Your task to perform on an android device: choose inbox layout in the gmail app Image 0: 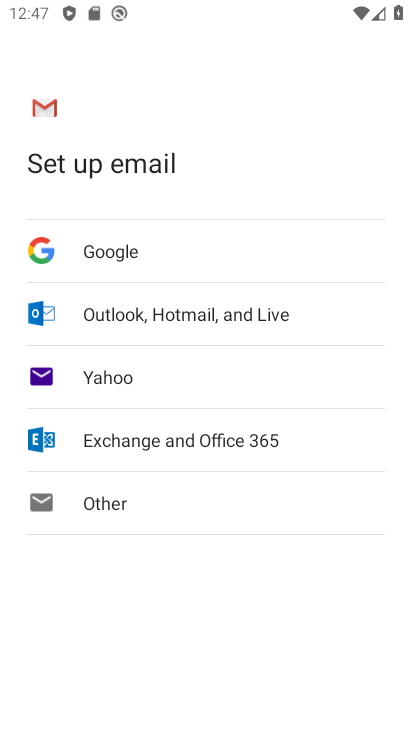
Step 0: press back button
Your task to perform on an android device: choose inbox layout in the gmail app Image 1: 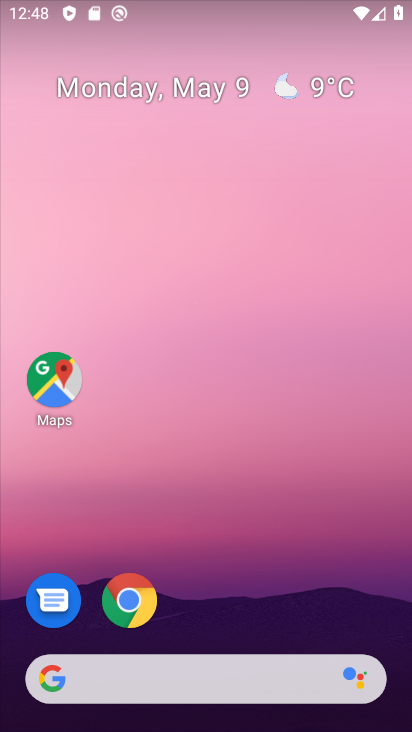
Step 1: click (183, 645)
Your task to perform on an android device: choose inbox layout in the gmail app Image 2: 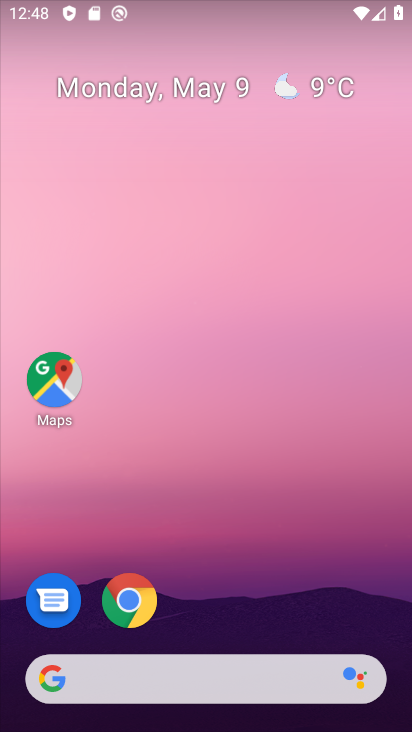
Step 2: drag from (195, 655) to (322, 175)
Your task to perform on an android device: choose inbox layout in the gmail app Image 3: 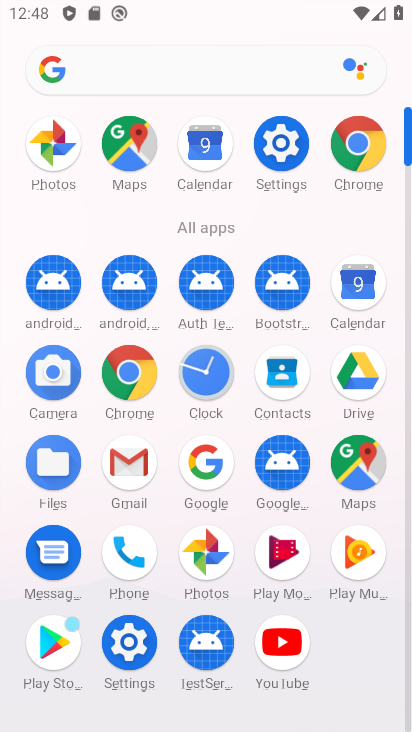
Step 3: click (98, 459)
Your task to perform on an android device: choose inbox layout in the gmail app Image 4: 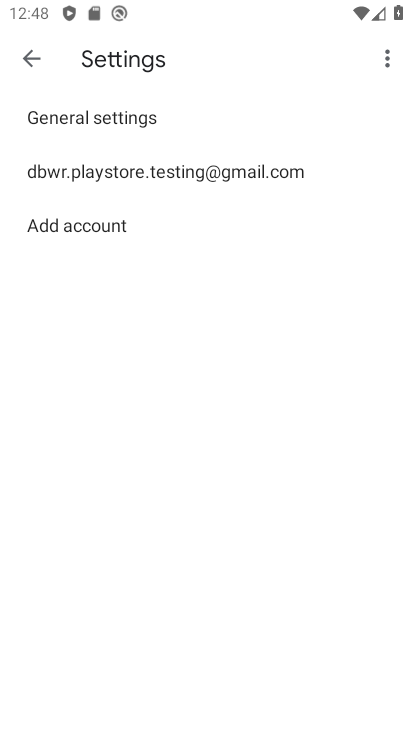
Step 4: click (271, 176)
Your task to perform on an android device: choose inbox layout in the gmail app Image 5: 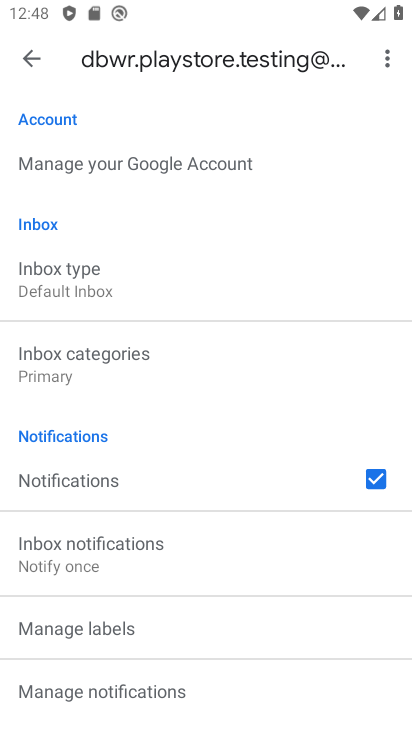
Step 5: click (205, 273)
Your task to perform on an android device: choose inbox layout in the gmail app Image 6: 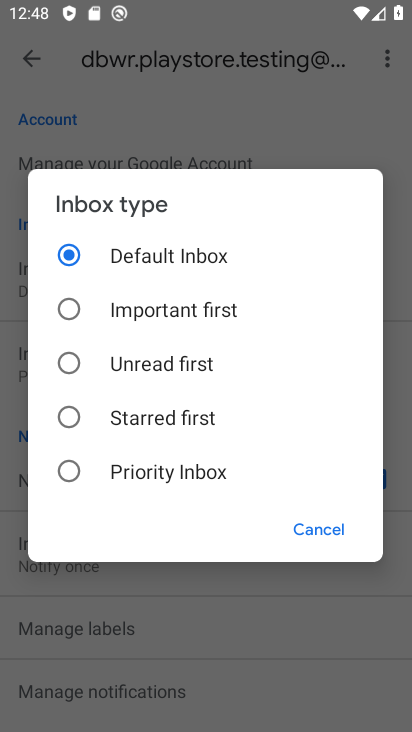
Step 6: click (198, 419)
Your task to perform on an android device: choose inbox layout in the gmail app Image 7: 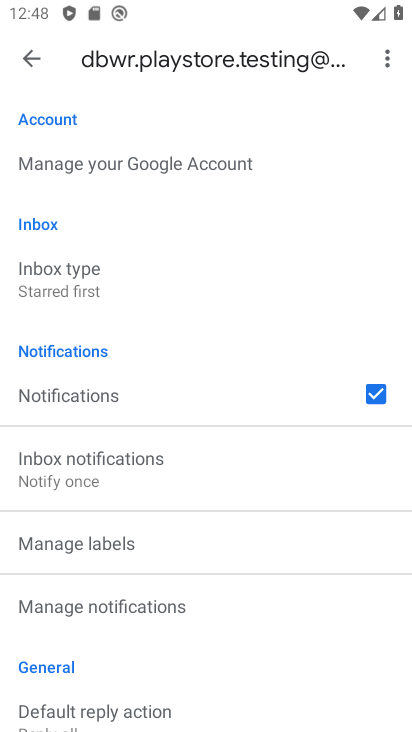
Step 7: task complete